Your task to perform on an android device: Open eBay Image 0: 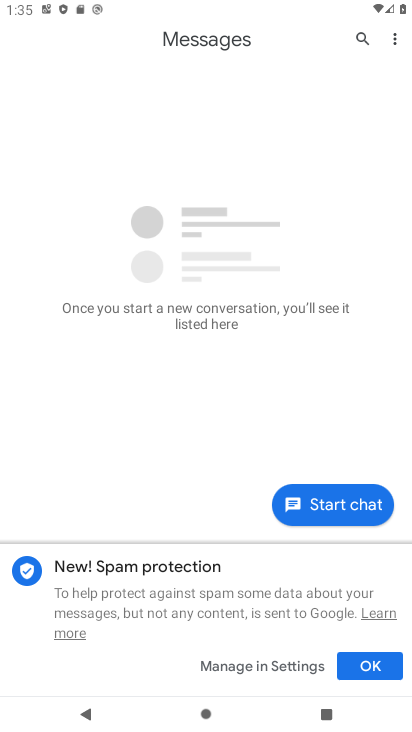
Step 0: press home button
Your task to perform on an android device: Open eBay Image 1: 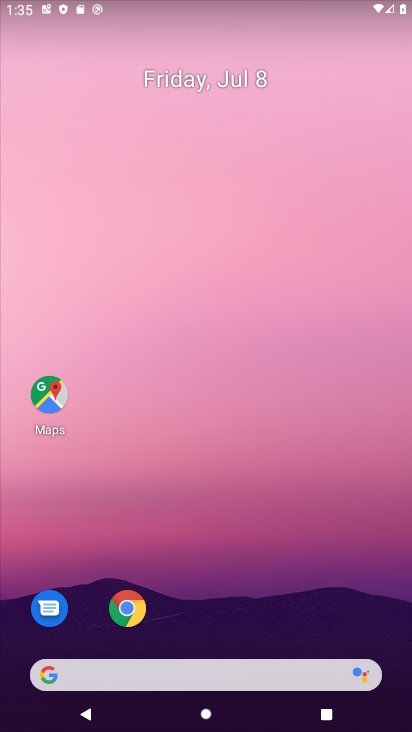
Step 1: click (131, 611)
Your task to perform on an android device: Open eBay Image 2: 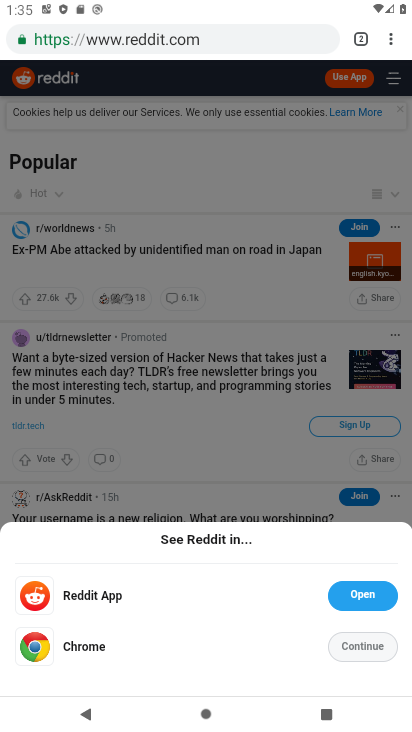
Step 2: click (223, 34)
Your task to perform on an android device: Open eBay Image 3: 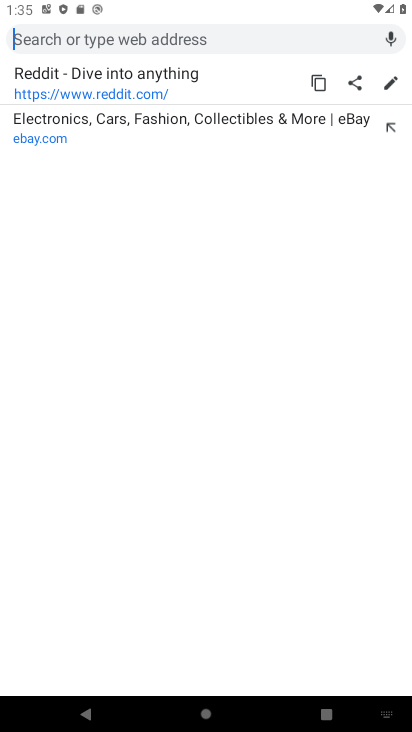
Step 3: type "eBay"
Your task to perform on an android device: Open eBay Image 4: 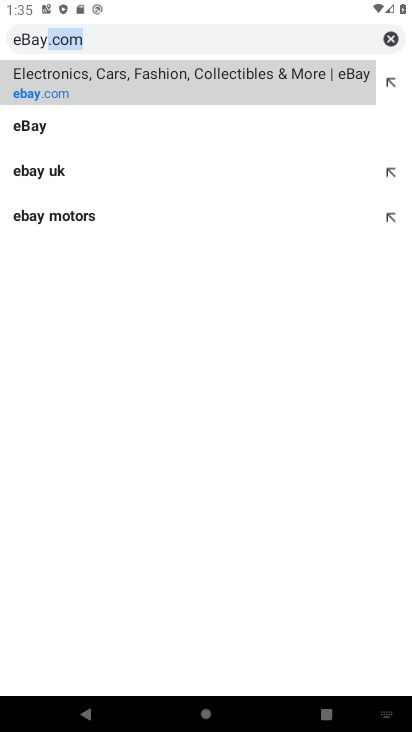
Step 4: click (55, 74)
Your task to perform on an android device: Open eBay Image 5: 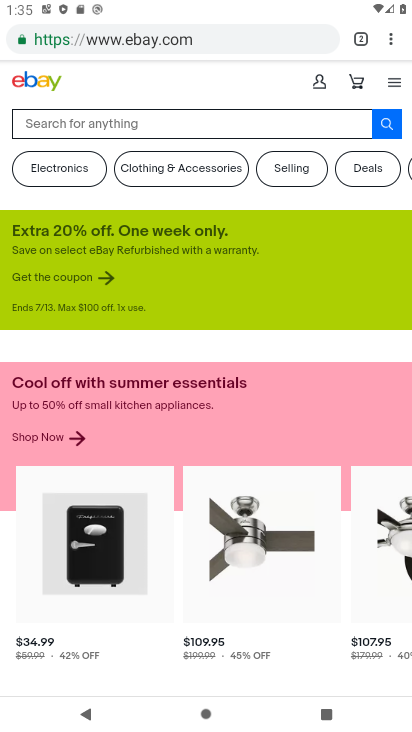
Step 5: task complete